Your task to perform on an android device: manage bookmarks in the chrome app Image 0: 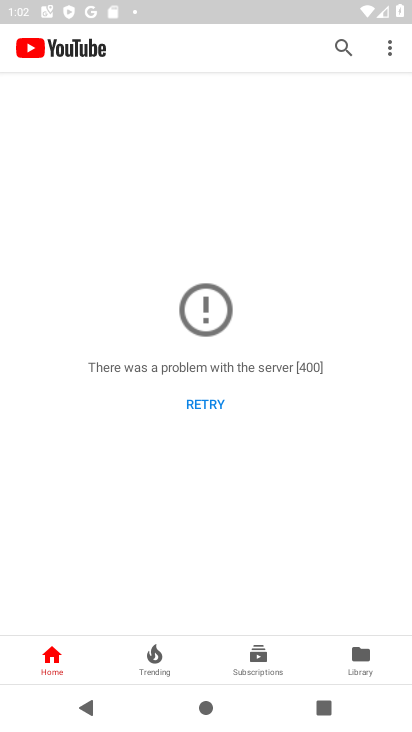
Step 0: click (386, 55)
Your task to perform on an android device: manage bookmarks in the chrome app Image 1: 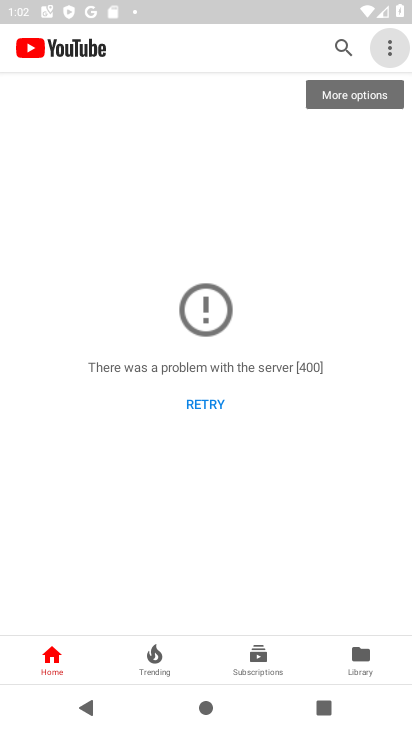
Step 1: click (385, 54)
Your task to perform on an android device: manage bookmarks in the chrome app Image 2: 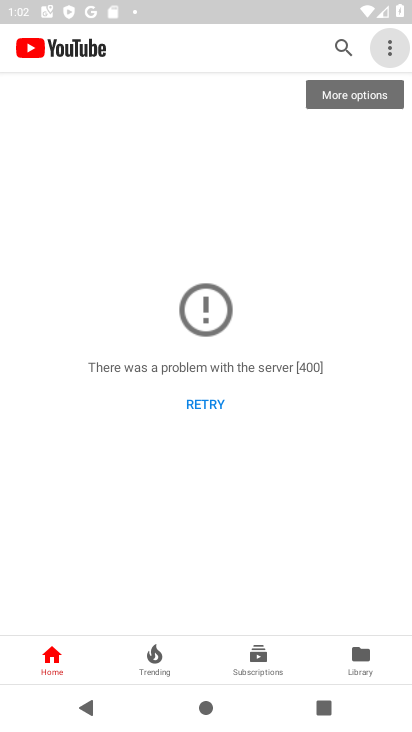
Step 2: click (386, 52)
Your task to perform on an android device: manage bookmarks in the chrome app Image 3: 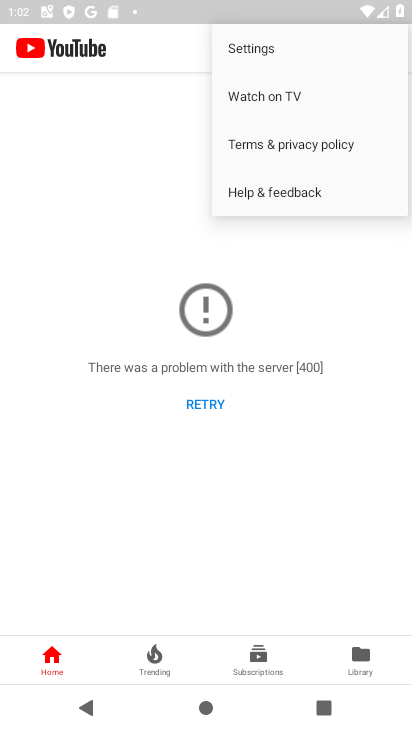
Step 3: press home button
Your task to perform on an android device: manage bookmarks in the chrome app Image 4: 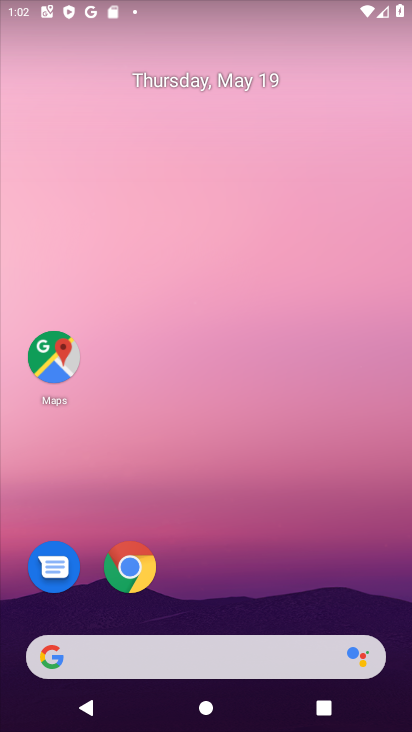
Step 4: click (134, 577)
Your task to perform on an android device: manage bookmarks in the chrome app Image 5: 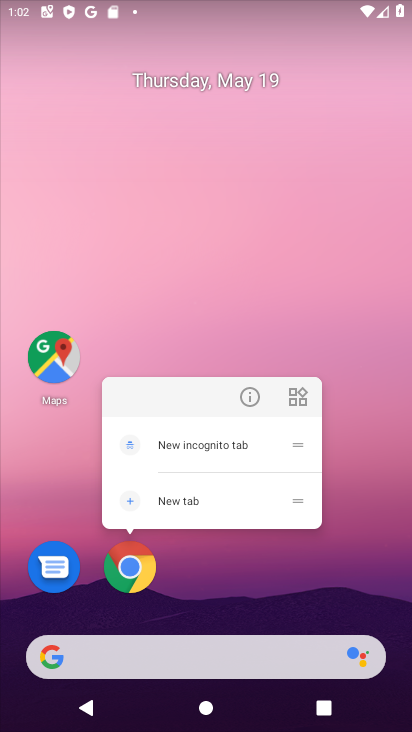
Step 5: click (132, 578)
Your task to perform on an android device: manage bookmarks in the chrome app Image 6: 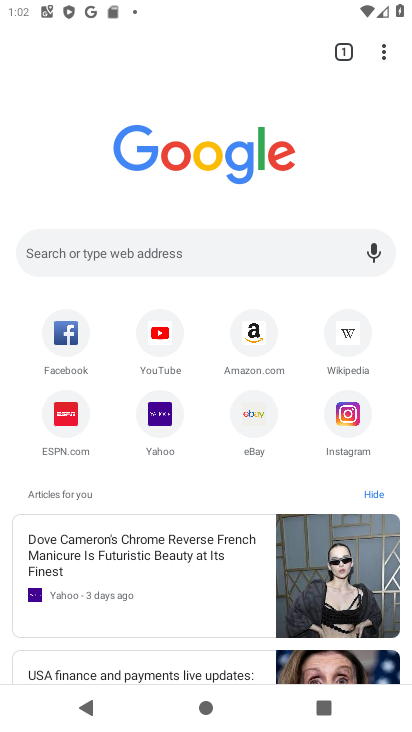
Step 6: drag from (388, 52) to (218, 201)
Your task to perform on an android device: manage bookmarks in the chrome app Image 7: 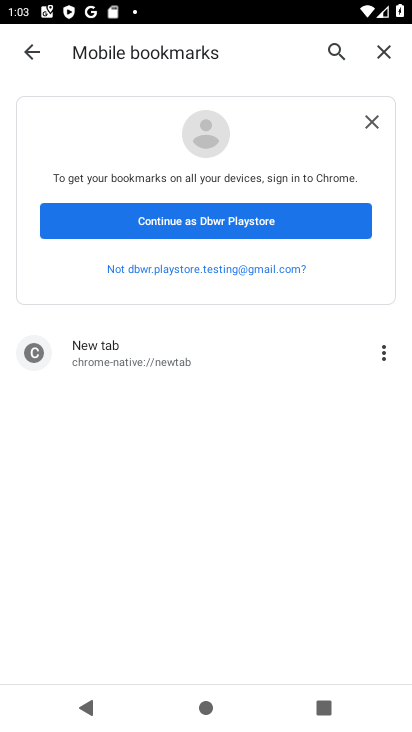
Step 7: click (228, 225)
Your task to perform on an android device: manage bookmarks in the chrome app Image 8: 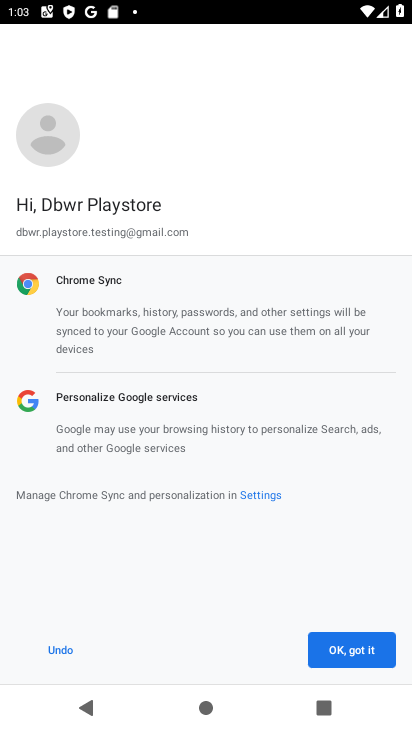
Step 8: click (357, 646)
Your task to perform on an android device: manage bookmarks in the chrome app Image 9: 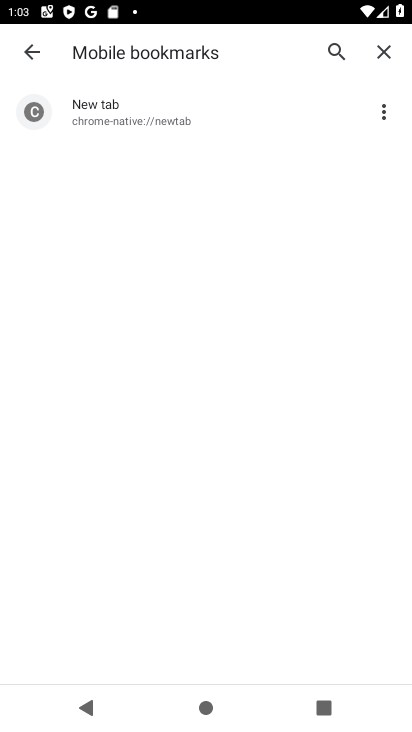
Step 9: task complete